Your task to perform on an android device: Open notification settings Image 0: 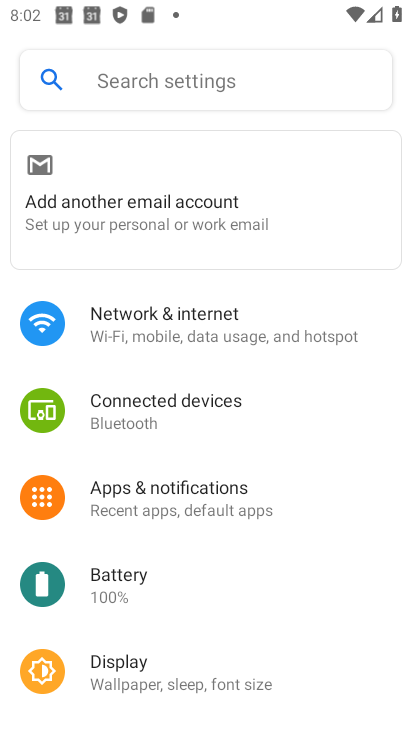
Step 0: drag from (365, 575) to (390, 284)
Your task to perform on an android device: Open notification settings Image 1: 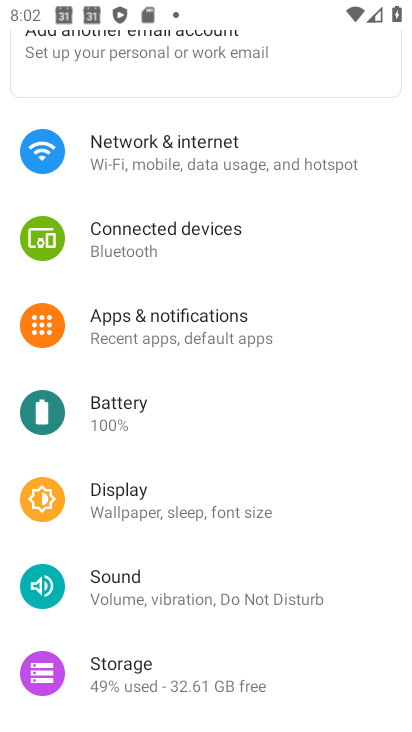
Step 1: drag from (369, 579) to (363, 389)
Your task to perform on an android device: Open notification settings Image 2: 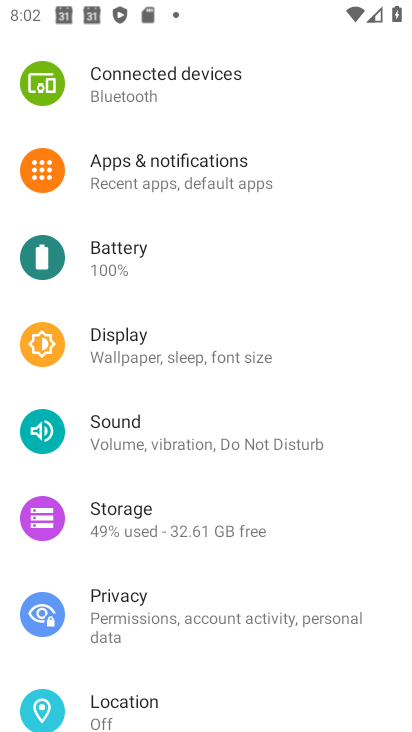
Step 2: drag from (389, 531) to (388, 337)
Your task to perform on an android device: Open notification settings Image 3: 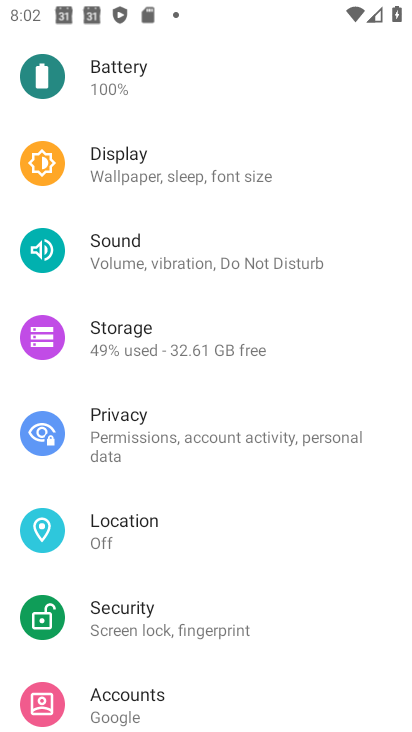
Step 3: drag from (366, 579) to (366, 352)
Your task to perform on an android device: Open notification settings Image 4: 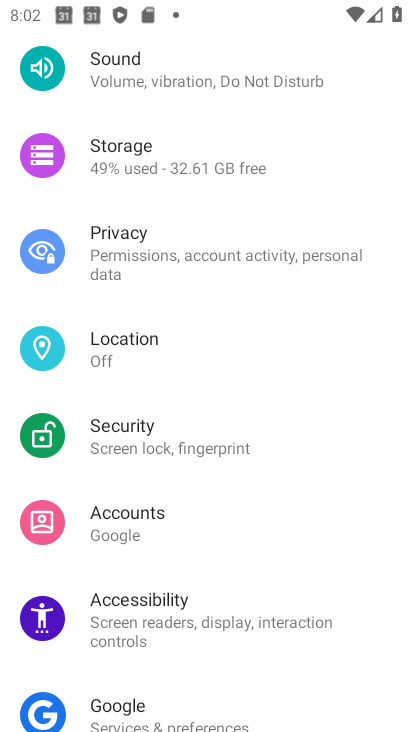
Step 4: drag from (376, 647) to (359, 428)
Your task to perform on an android device: Open notification settings Image 5: 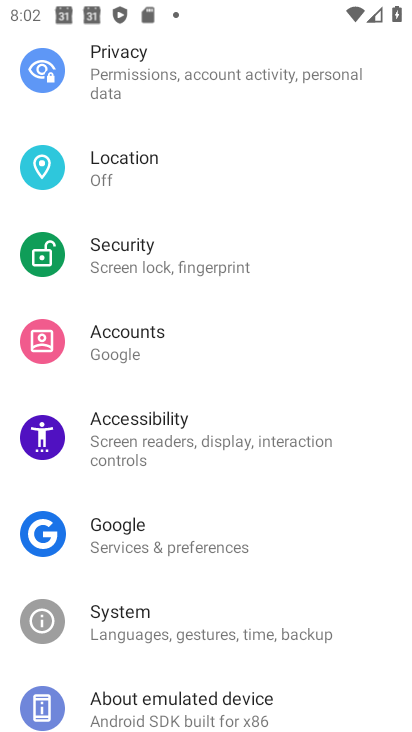
Step 5: drag from (372, 600) to (373, 400)
Your task to perform on an android device: Open notification settings Image 6: 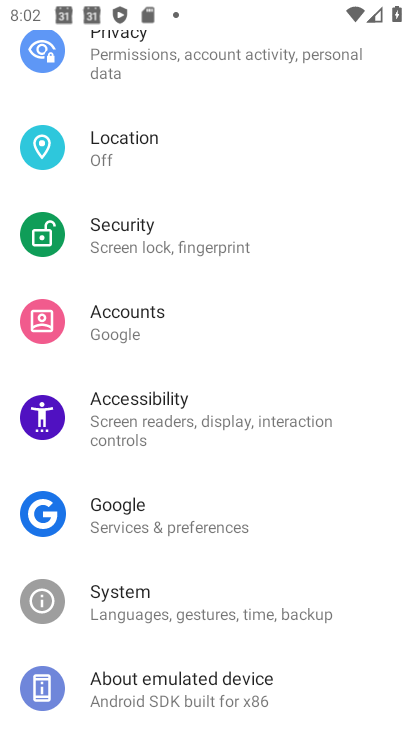
Step 6: drag from (368, 292) to (369, 547)
Your task to perform on an android device: Open notification settings Image 7: 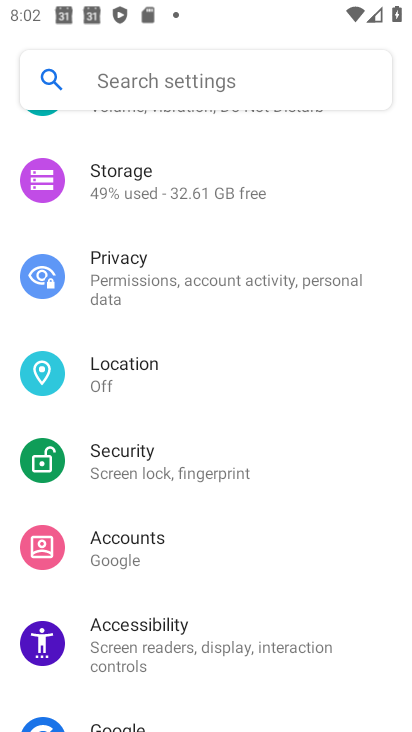
Step 7: drag from (379, 258) to (367, 491)
Your task to perform on an android device: Open notification settings Image 8: 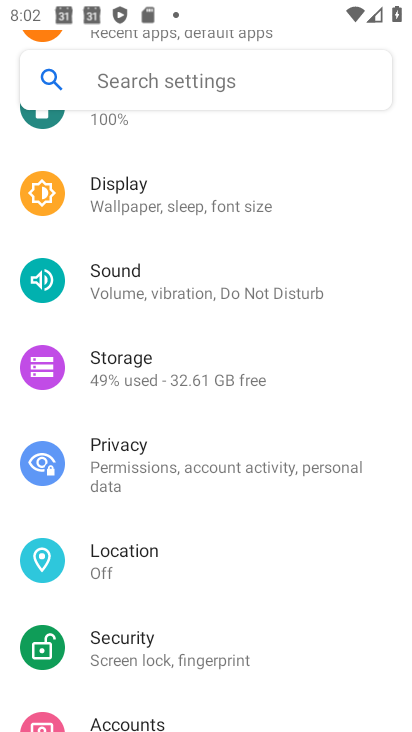
Step 8: drag from (377, 272) to (375, 455)
Your task to perform on an android device: Open notification settings Image 9: 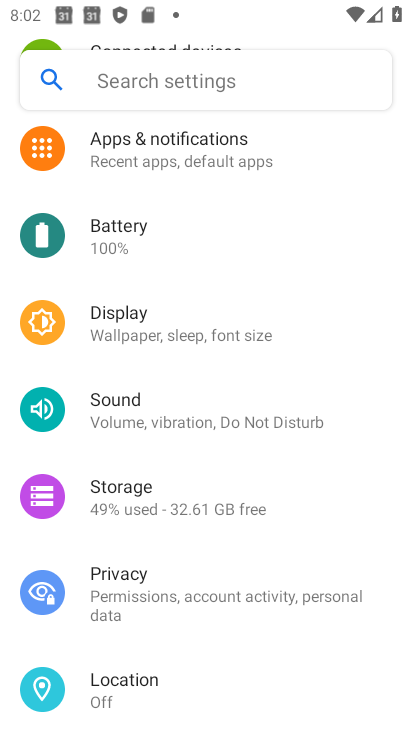
Step 9: drag from (362, 240) to (361, 410)
Your task to perform on an android device: Open notification settings Image 10: 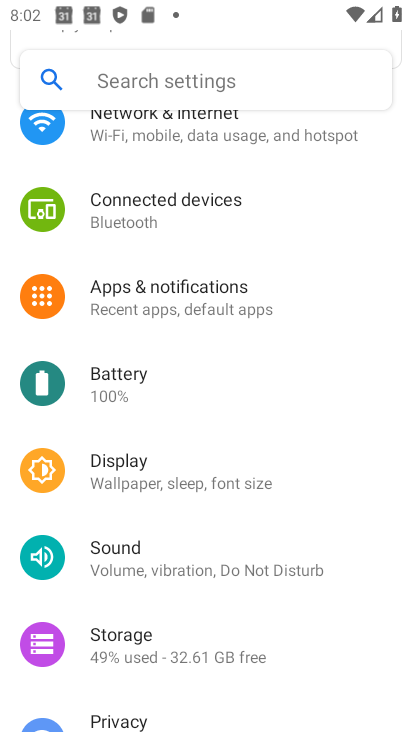
Step 10: click (194, 294)
Your task to perform on an android device: Open notification settings Image 11: 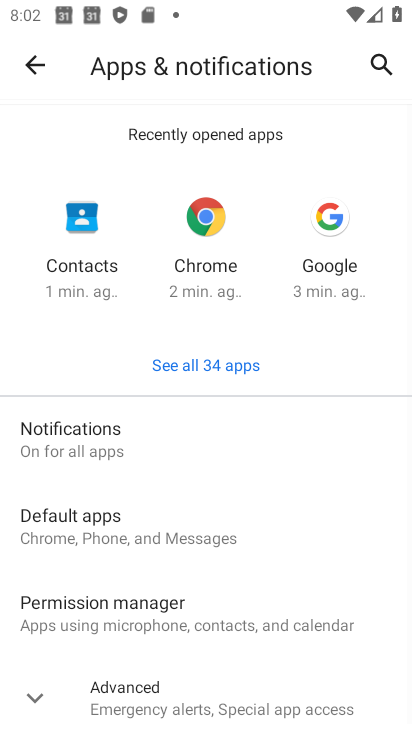
Step 11: click (92, 440)
Your task to perform on an android device: Open notification settings Image 12: 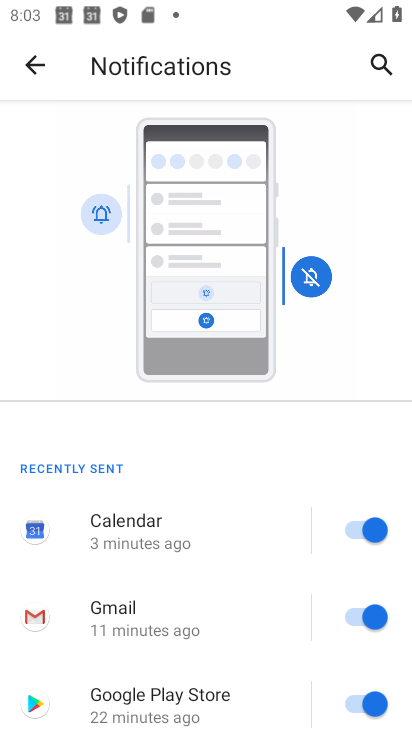
Step 12: task complete